Your task to perform on an android device: delete location history Image 0: 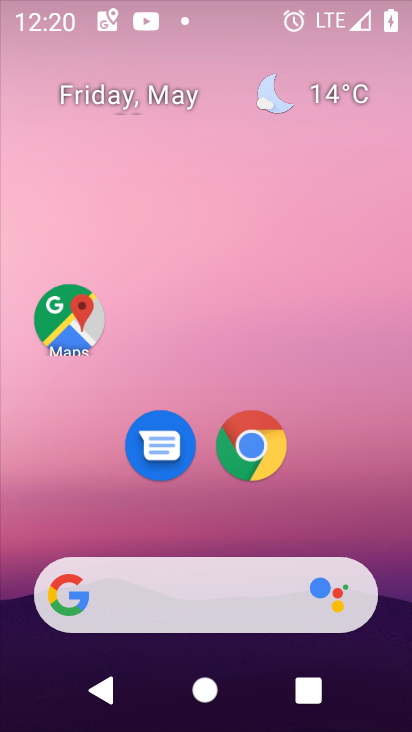
Step 0: drag from (306, 445) to (314, 232)
Your task to perform on an android device: delete location history Image 1: 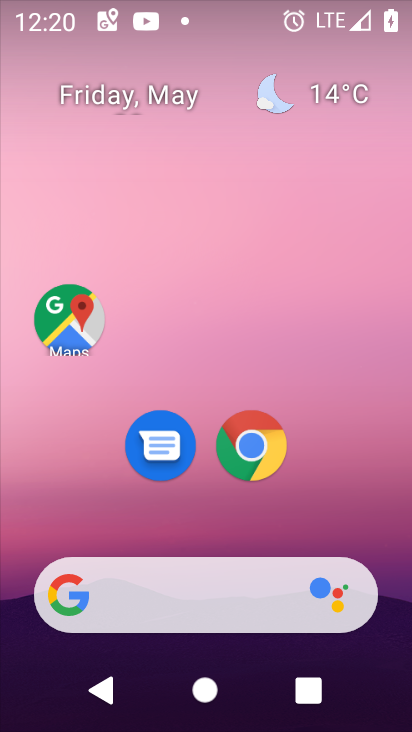
Step 1: drag from (246, 507) to (290, 153)
Your task to perform on an android device: delete location history Image 2: 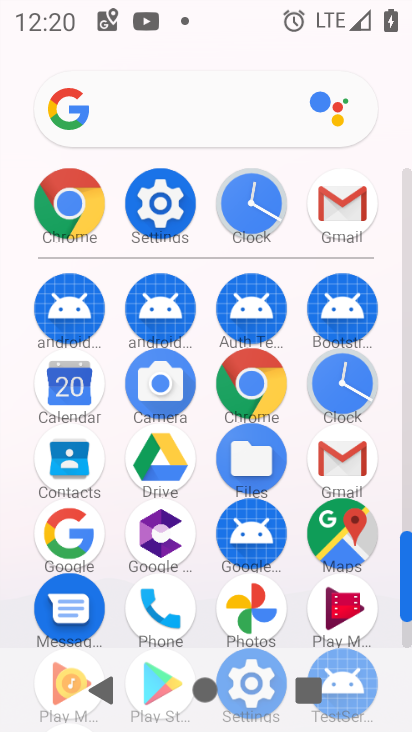
Step 2: click (162, 229)
Your task to perform on an android device: delete location history Image 3: 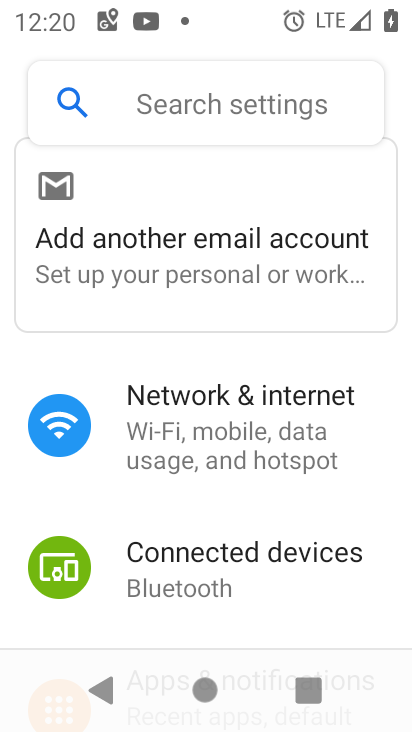
Step 3: drag from (240, 508) to (276, 290)
Your task to perform on an android device: delete location history Image 4: 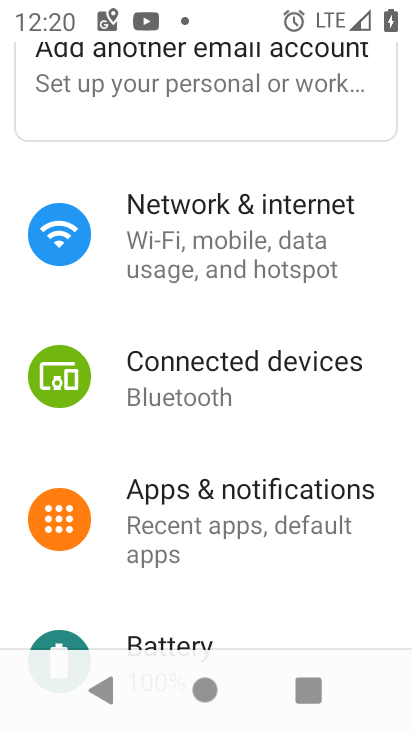
Step 4: drag from (226, 563) to (282, 228)
Your task to perform on an android device: delete location history Image 5: 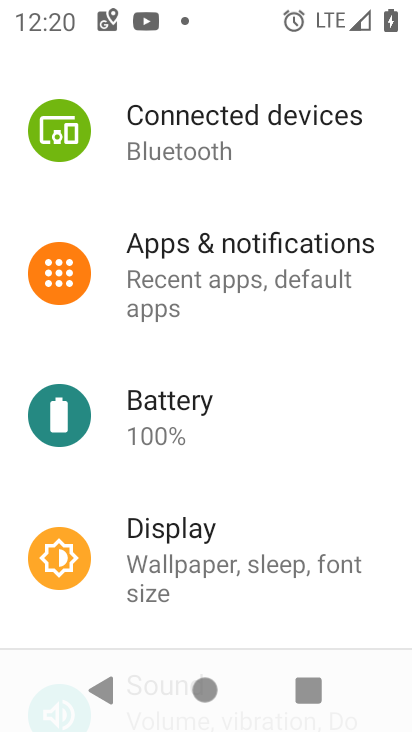
Step 5: drag from (283, 497) to (335, 165)
Your task to perform on an android device: delete location history Image 6: 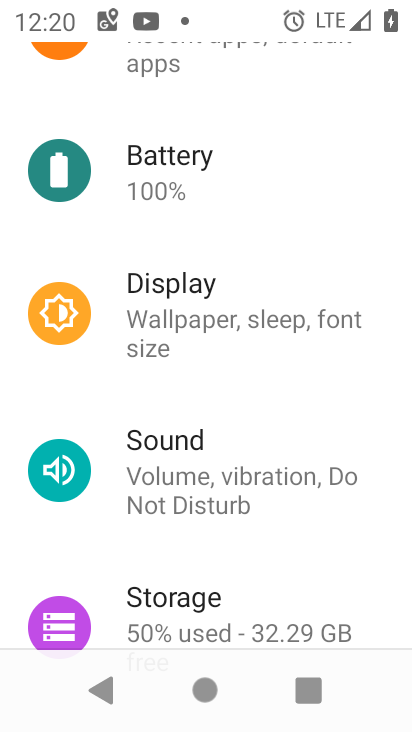
Step 6: drag from (273, 526) to (307, 214)
Your task to perform on an android device: delete location history Image 7: 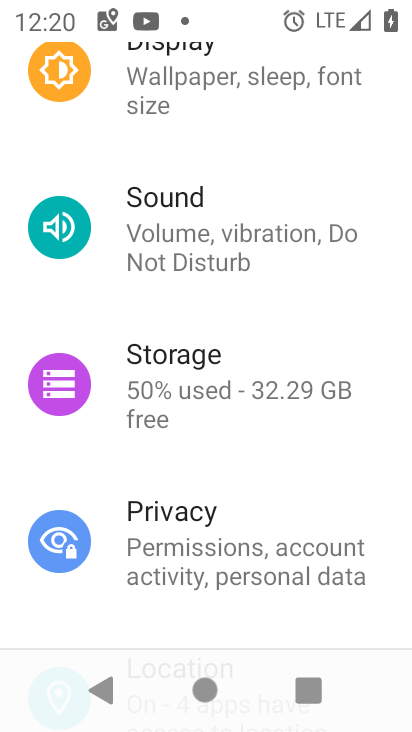
Step 7: drag from (223, 523) to (278, 206)
Your task to perform on an android device: delete location history Image 8: 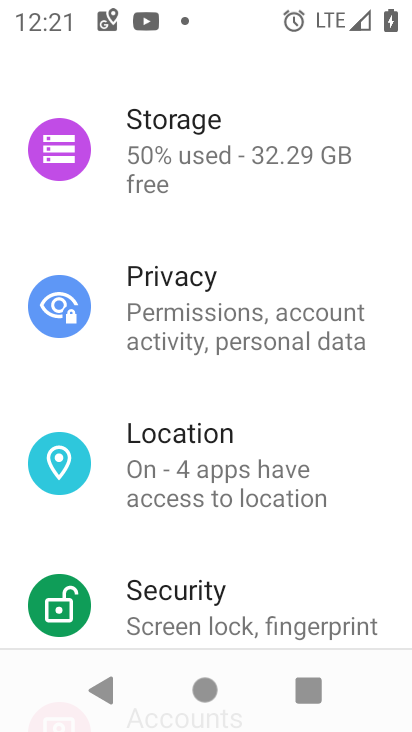
Step 8: click (250, 489)
Your task to perform on an android device: delete location history Image 9: 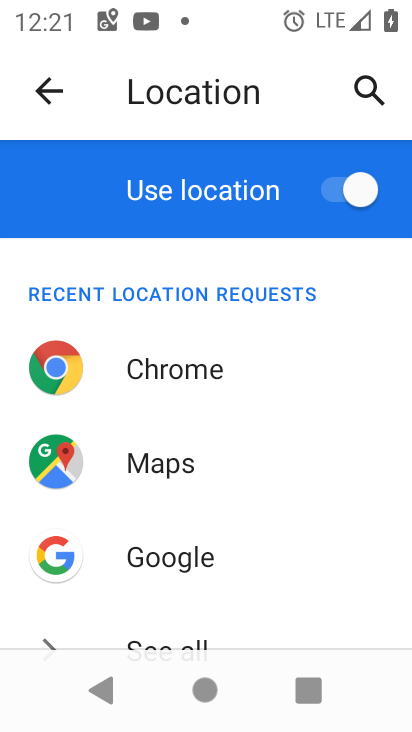
Step 9: drag from (229, 564) to (263, 267)
Your task to perform on an android device: delete location history Image 10: 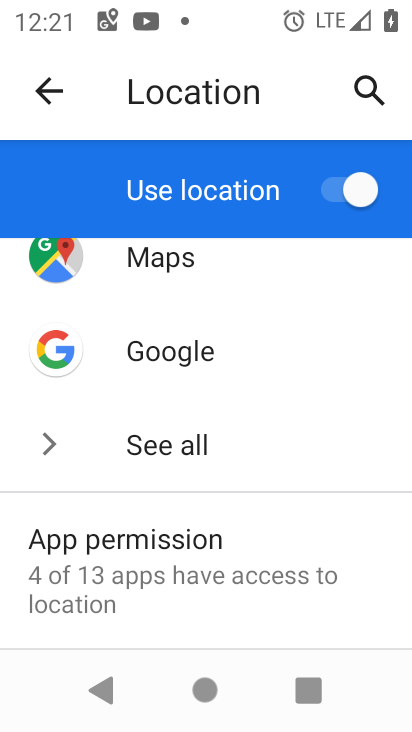
Step 10: drag from (224, 535) to (253, 245)
Your task to perform on an android device: delete location history Image 11: 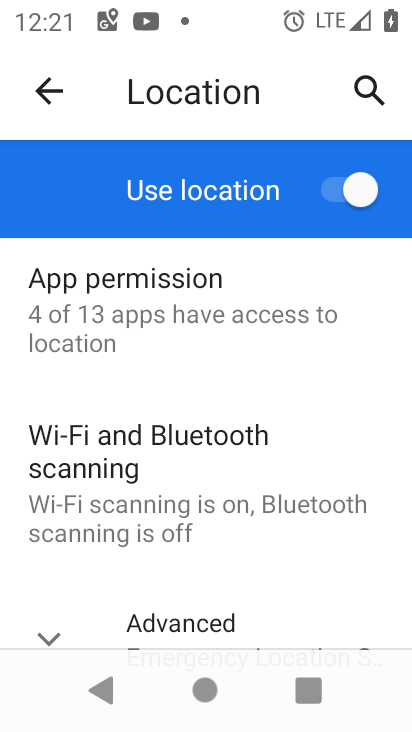
Step 11: drag from (212, 565) to (261, 254)
Your task to perform on an android device: delete location history Image 12: 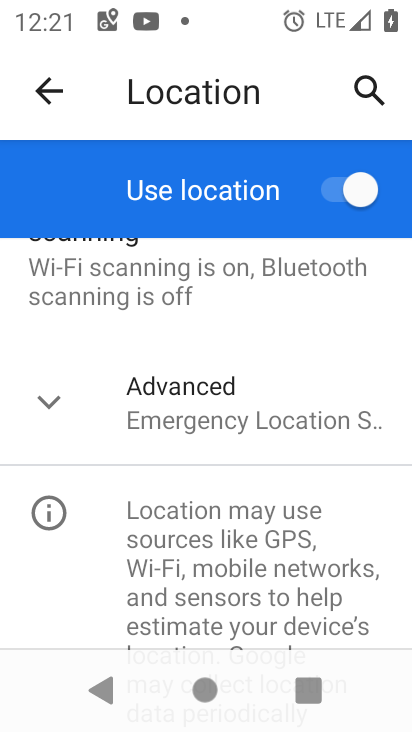
Step 12: click (216, 409)
Your task to perform on an android device: delete location history Image 13: 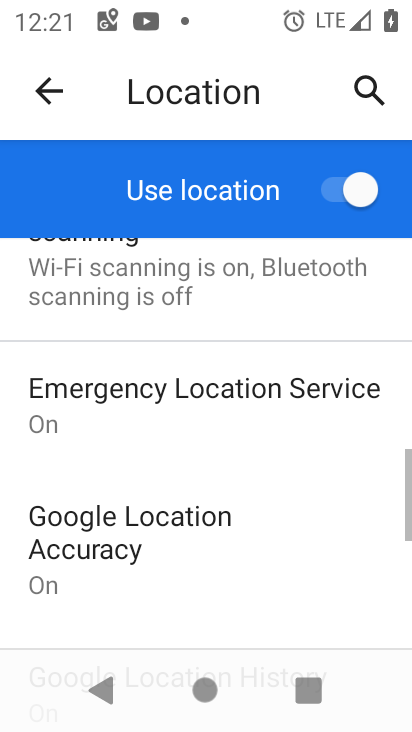
Step 13: drag from (210, 447) to (241, 283)
Your task to perform on an android device: delete location history Image 14: 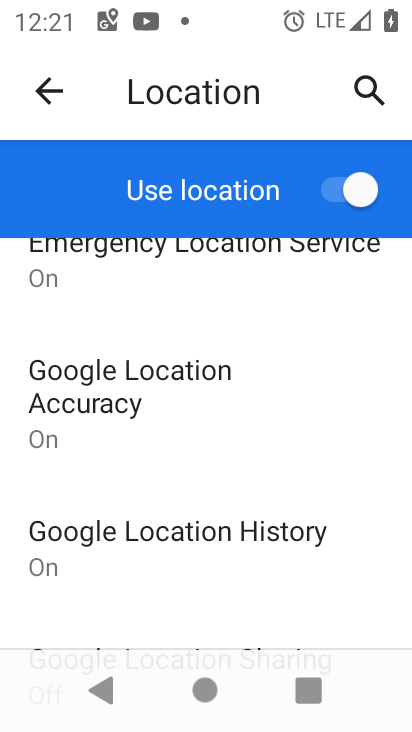
Step 14: click (212, 535)
Your task to perform on an android device: delete location history Image 15: 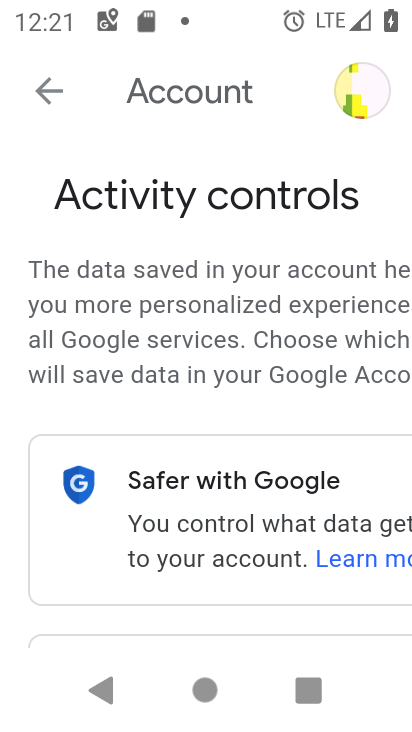
Step 15: drag from (253, 324) to (264, 285)
Your task to perform on an android device: delete location history Image 16: 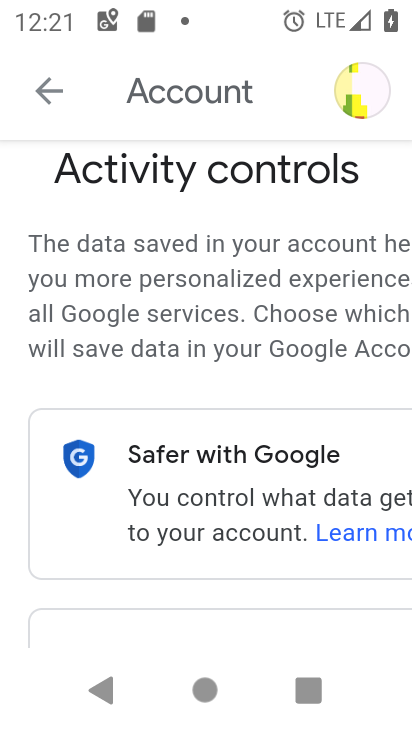
Step 16: drag from (235, 572) to (269, 256)
Your task to perform on an android device: delete location history Image 17: 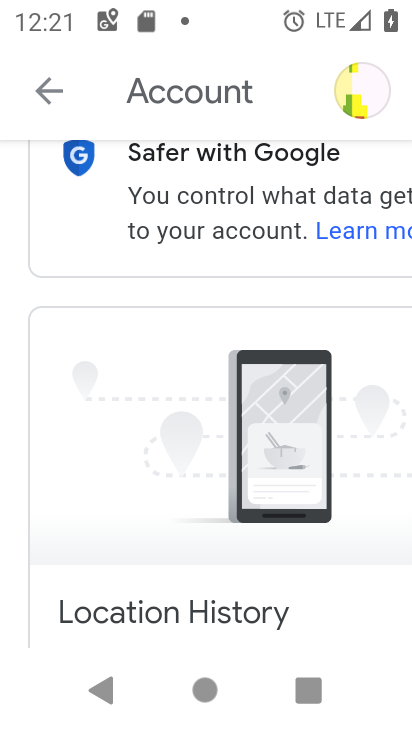
Step 17: drag from (237, 546) to (281, 222)
Your task to perform on an android device: delete location history Image 18: 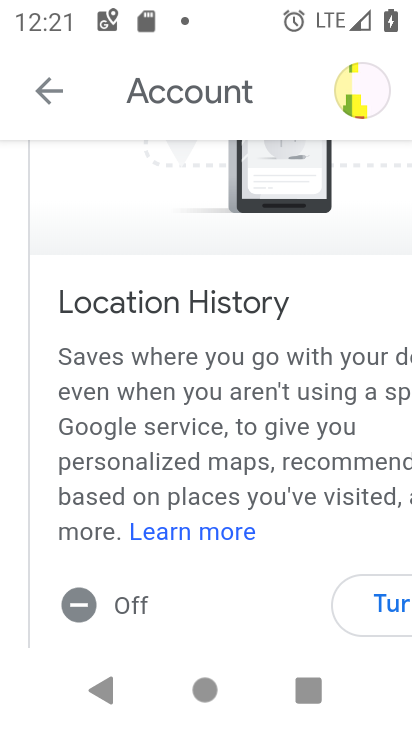
Step 18: drag from (245, 546) to (268, 319)
Your task to perform on an android device: delete location history Image 19: 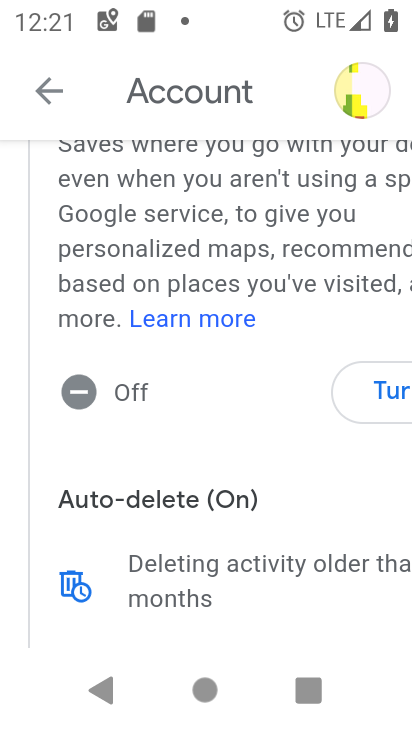
Step 19: click (281, 578)
Your task to perform on an android device: delete location history Image 20: 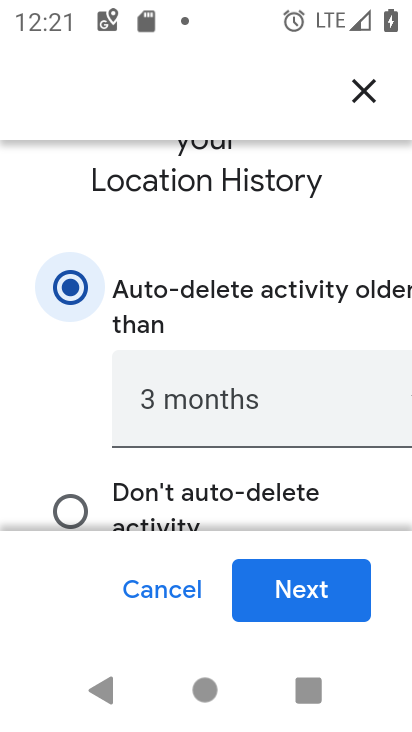
Step 20: click (315, 399)
Your task to perform on an android device: delete location history Image 21: 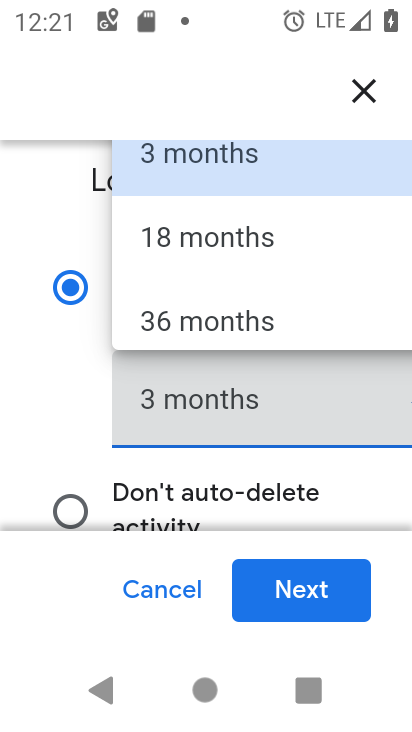
Step 21: click (253, 233)
Your task to perform on an android device: delete location history Image 22: 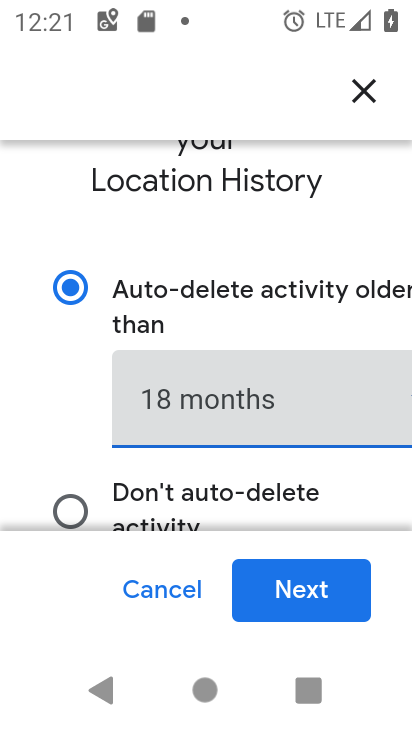
Step 22: click (286, 612)
Your task to perform on an android device: delete location history Image 23: 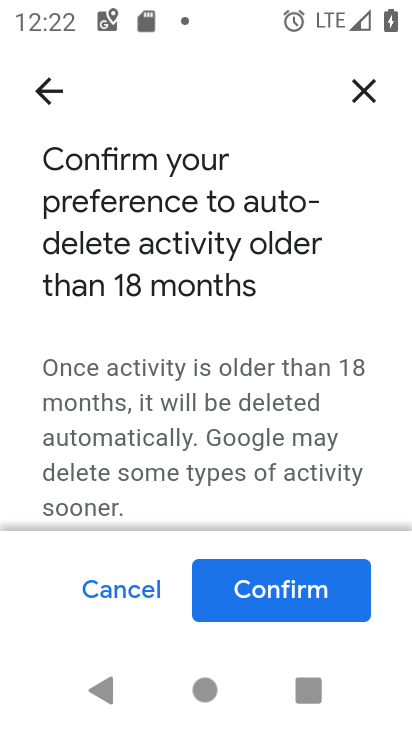
Step 23: click (298, 589)
Your task to perform on an android device: delete location history Image 24: 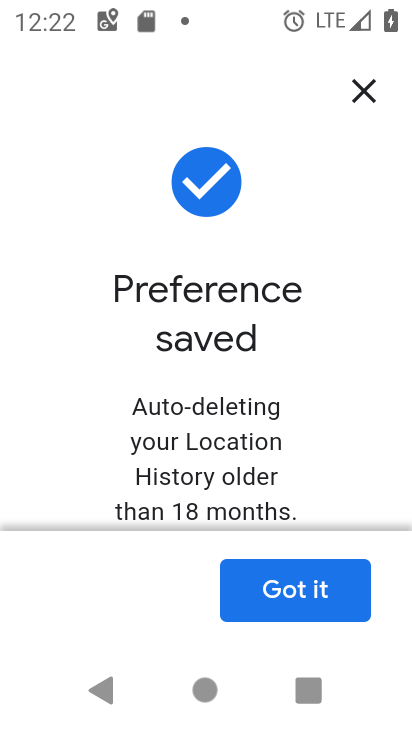
Step 24: click (328, 600)
Your task to perform on an android device: delete location history Image 25: 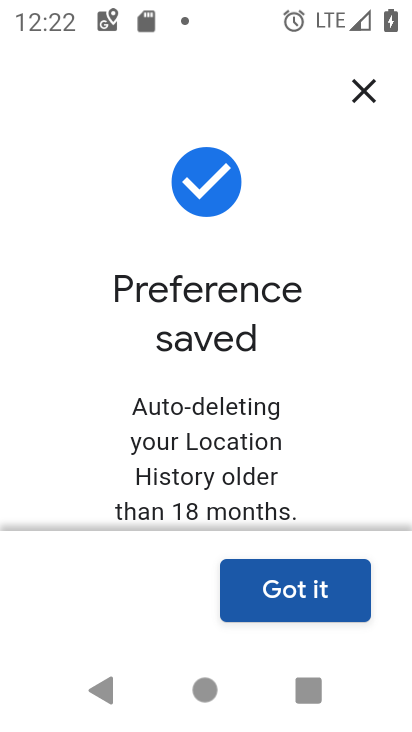
Step 25: task complete